Your task to perform on an android device: check the backup settings in the google photos Image 0: 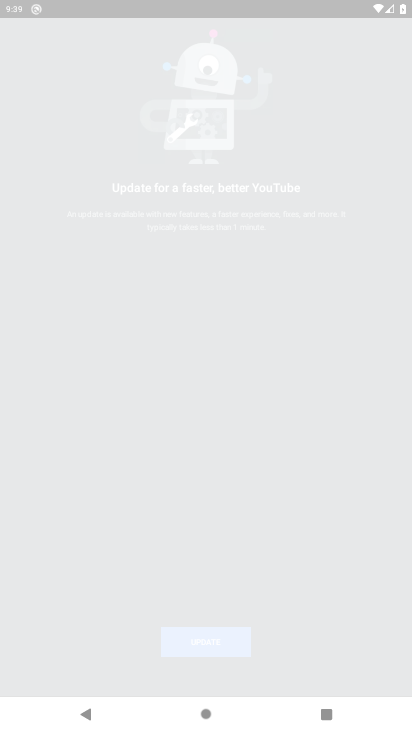
Step 0: drag from (44, 707) to (326, 193)
Your task to perform on an android device: check the backup settings in the google photos Image 1: 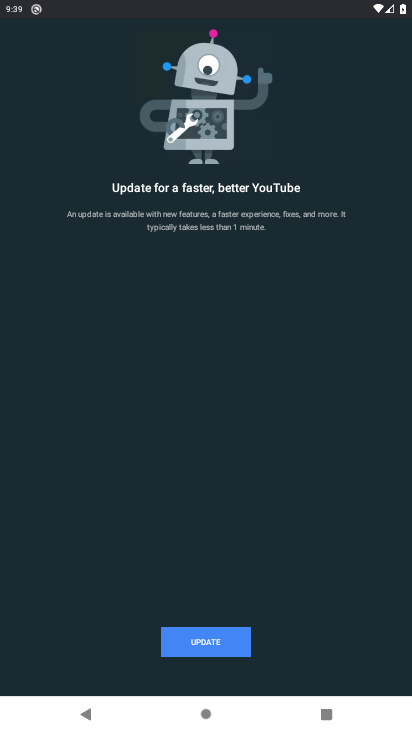
Step 1: press home button
Your task to perform on an android device: check the backup settings in the google photos Image 2: 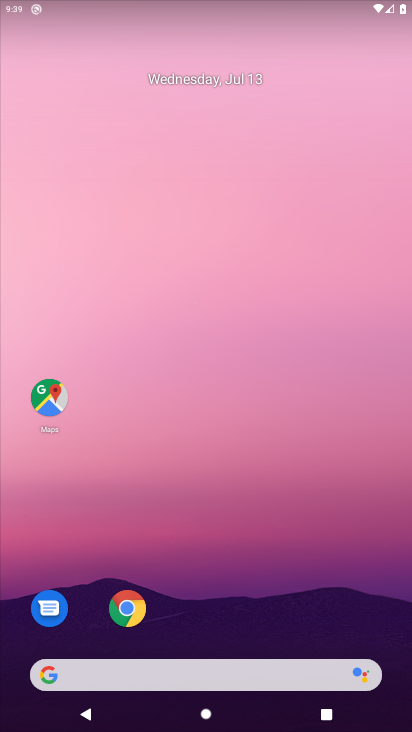
Step 2: drag from (36, 703) to (280, 149)
Your task to perform on an android device: check the backup settings in the google photos Image 3: 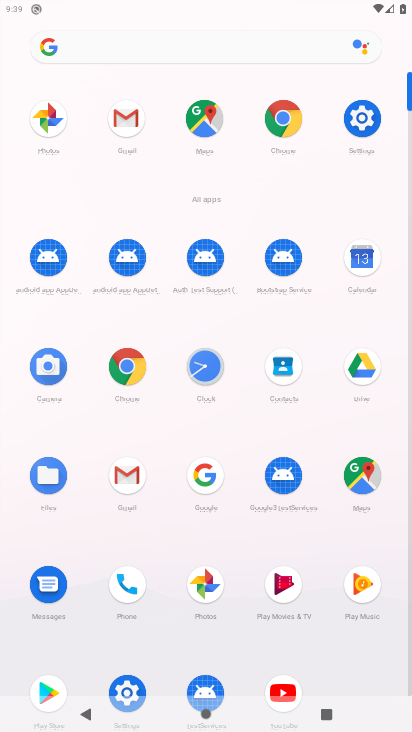
Step 3: click (197, 588)
Your task to perform on an android device: check the backup settings in the google photos Image 4: 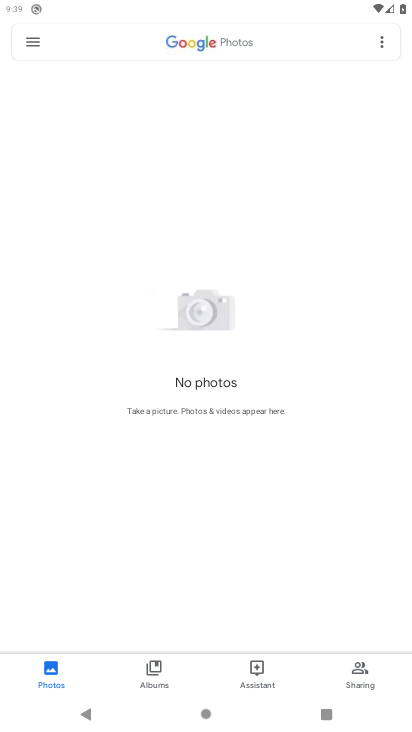
Step 4: click (34, 45)
Your task to perform on an android device: check the backup settings in the google photos Image 5: 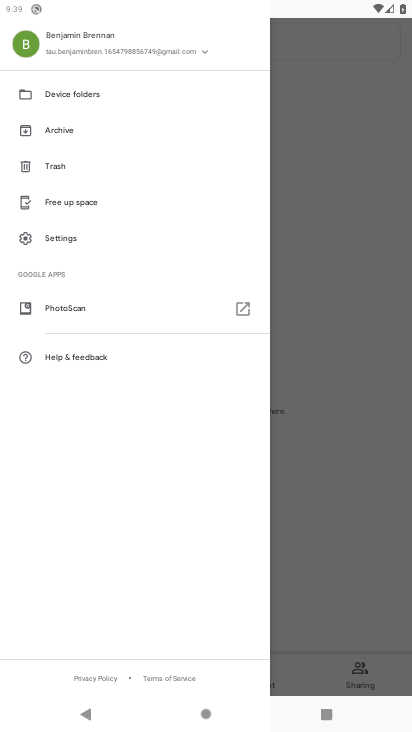
Step 5: click (69, 231)
Your task to perform on an android device: check the backup settings in the google photos Image 6: 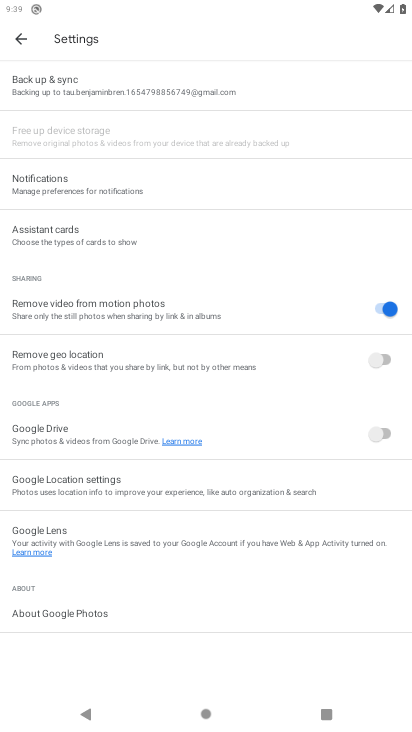
Step 6: click (103, 80)
Your task to perform on an android device: check the backup settings in the google photos Image 7: 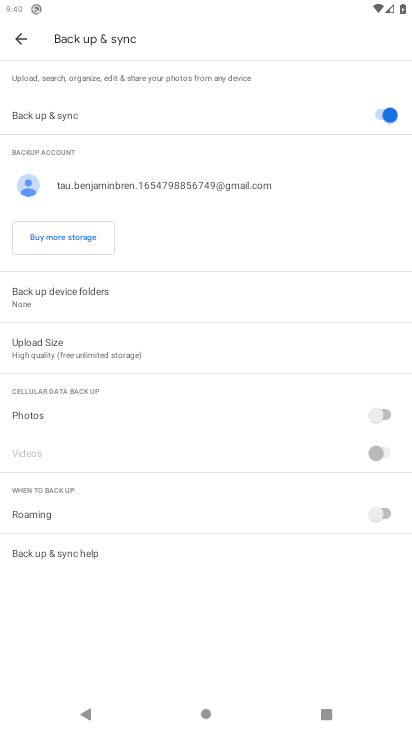
Step 7: task complete